Your task to perform on an android device: Search for "dell alienware" on costco.com, select the first entry, and add it to the cart. Image 0: 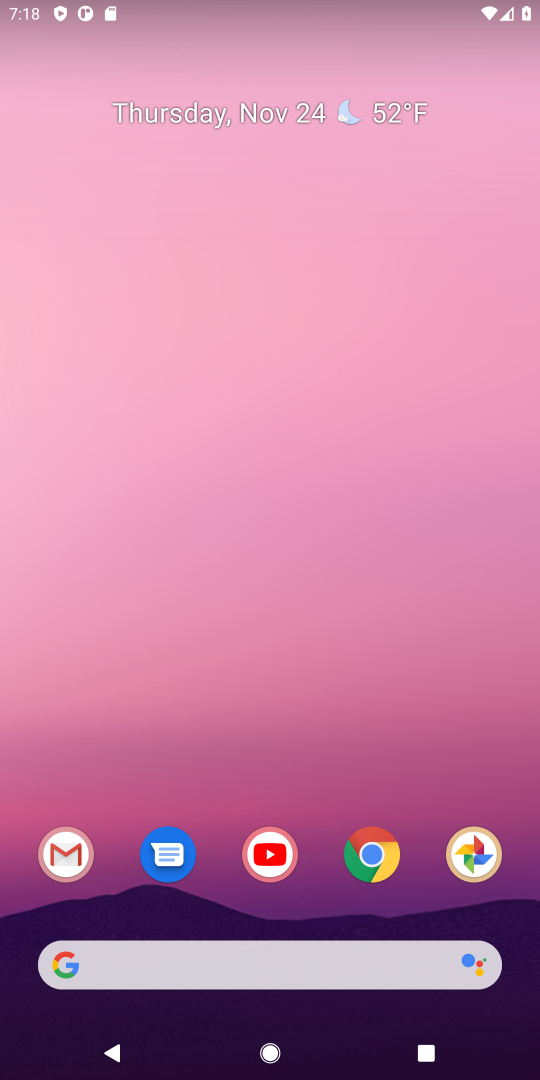
Step 0: click (364, 879)
Your task to perform on an android device: Search for "dell alienware" on costco.com, select the first entry, and add it to the cart. Image 1: 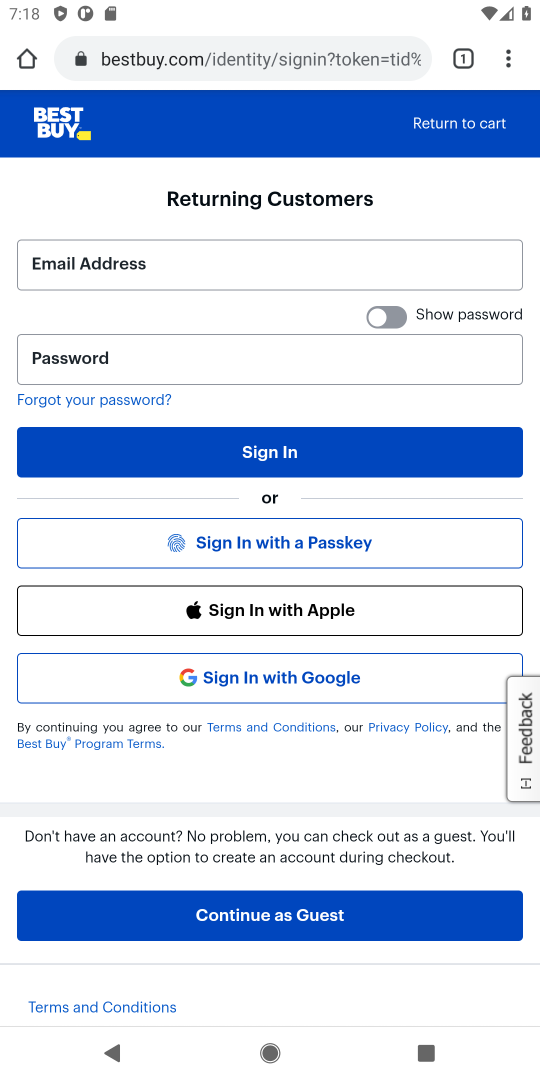
Step 1: click (183, 58)
Your task to perform on an android device: Search for "dell alienware" on costco.com, select the first entry, and add it to the cart. Image 2: 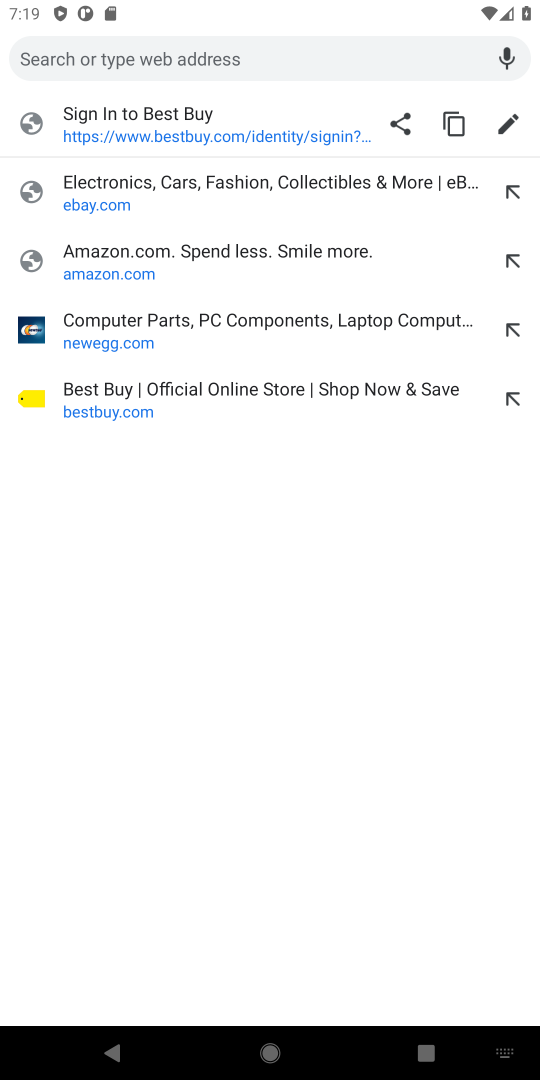
Step 2: type "costco.com"
Your task to perform on an android device: Search for "dell alienware" on costco.com, select the first entry, and add it to the cart. Image 3: 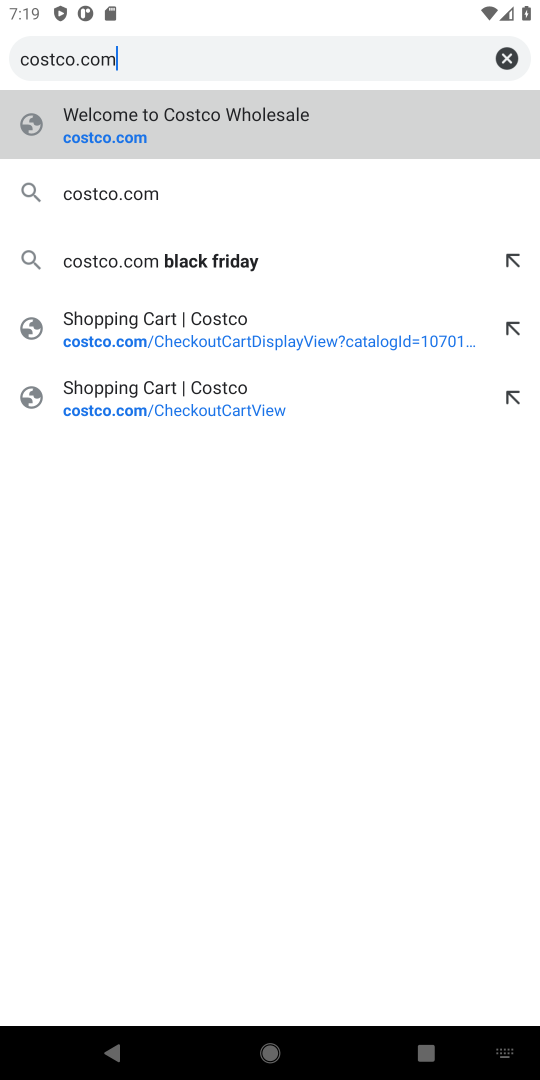
Step 3: click (77, 148)
Your task to perform on an android device: Search for "dell alienware" on costco.com, select the first entry, and add it to the cart. Image 4: 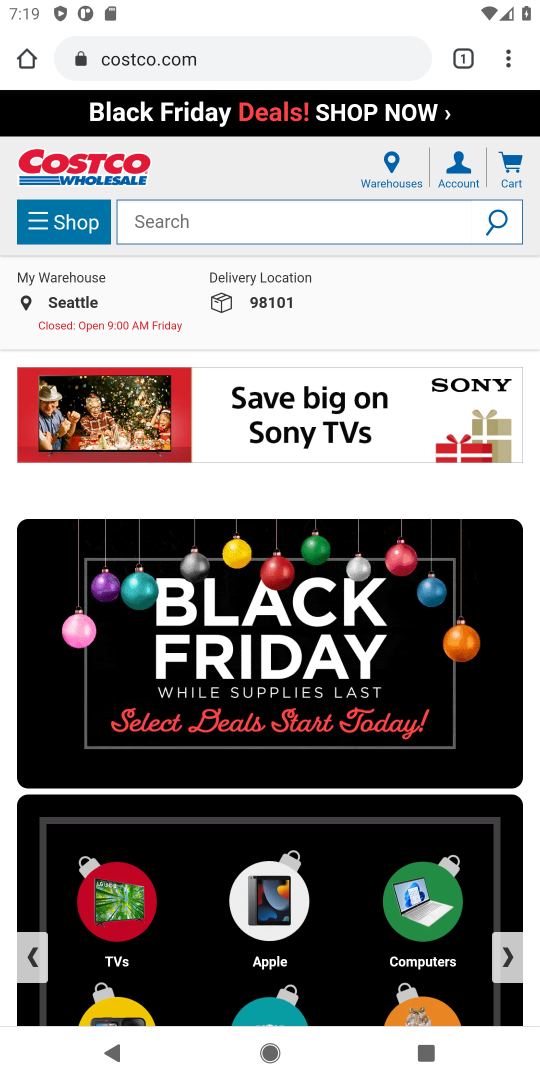
Step 4: click (209, 234)
Your task to perform on an android device: Search for "dell alienware" on costco.com, select the first entry, and add it to the cart. Image 5: 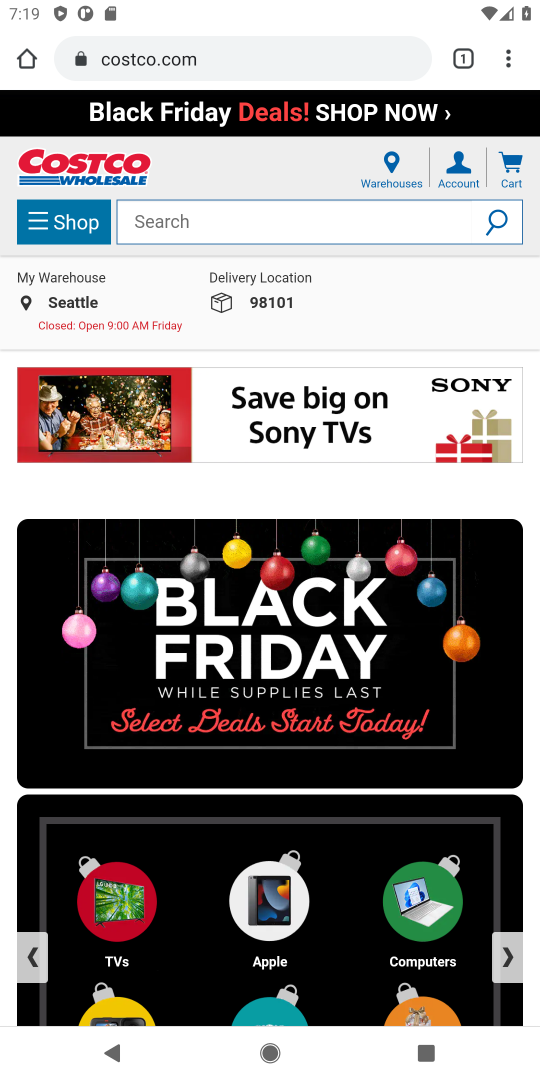
Step 5: click (209, 234)
Your task to perform on an android device: Search for "dell alienware" on costco.com, select the first entry, and add it to the cart. Image 6: 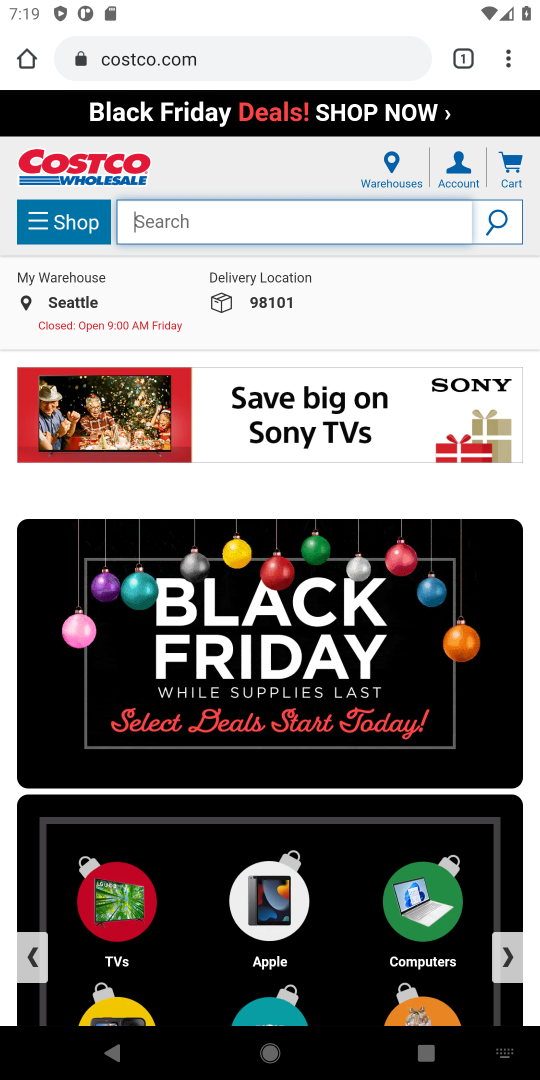
Step 6: type "dell alienware"
Your task to perform on an android device: Search for "dell alienware" on costco.com, select the first entry, and add it to the cart. Image 7: 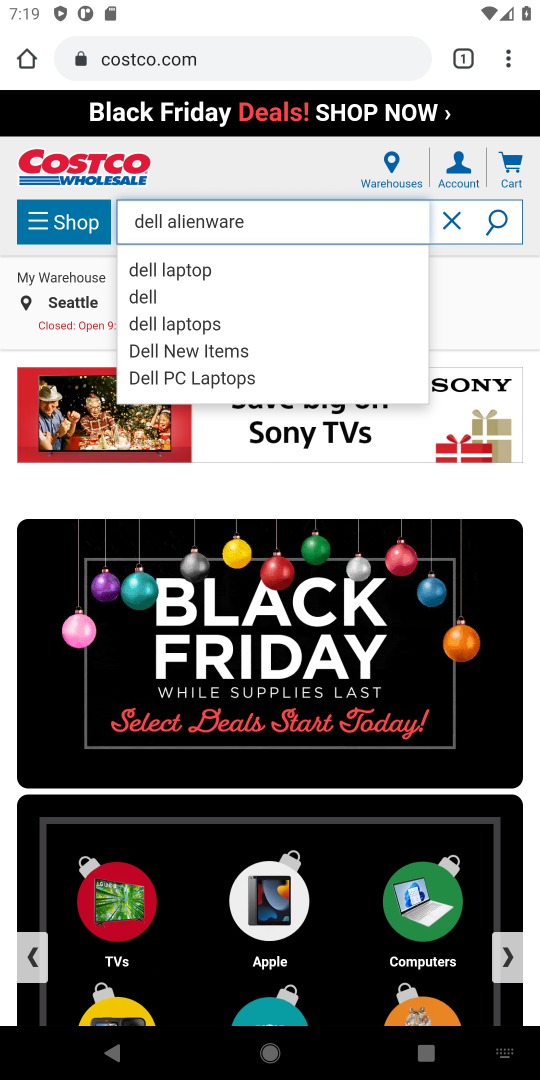
Step 7: click (493, 228)
Your task to perform on an android device: Search for "dell alienware" on costco.com, select the first entry, and add it to the cart. Image 8: 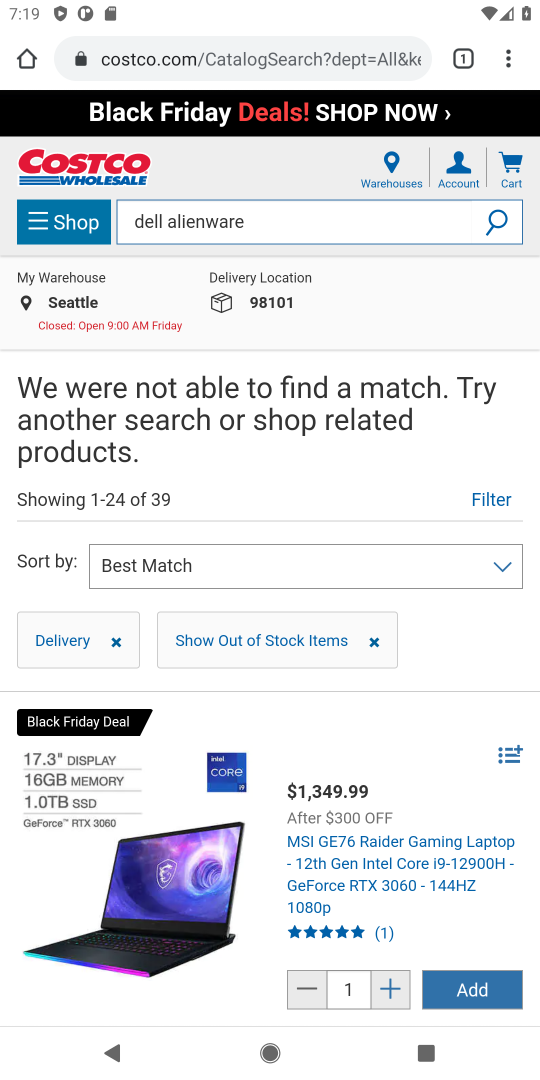
Step 8: task complete